Your task to perform on an android device: See recent photos Image 0: 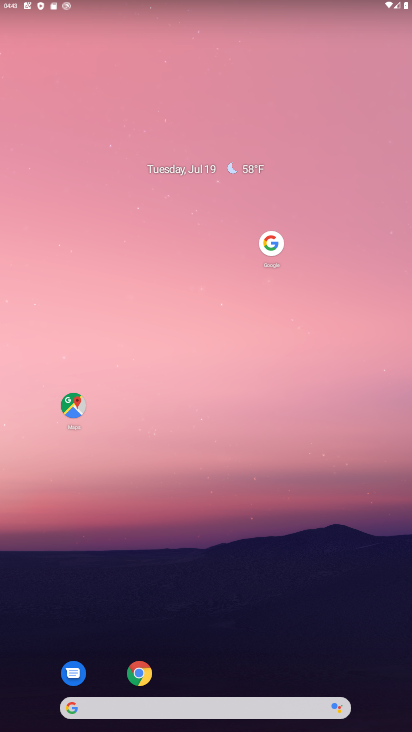
Step 0: press home button
Your task to perform on an android device: See recent photos Image 1: 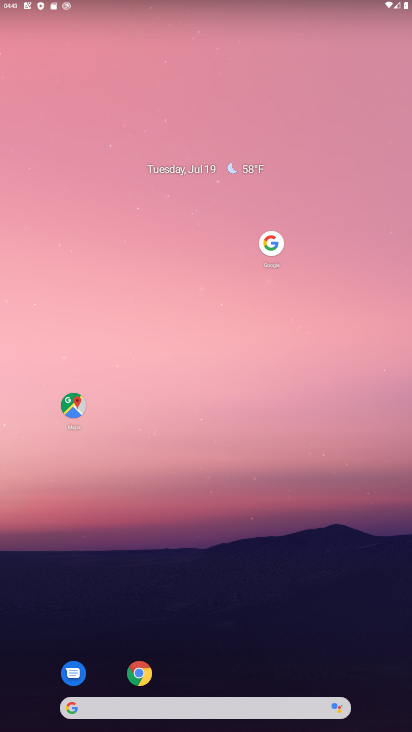
Step 1: drag from (263, 612) to (173, 155)
Your task to perform on an android device: See recent photos Image 2: 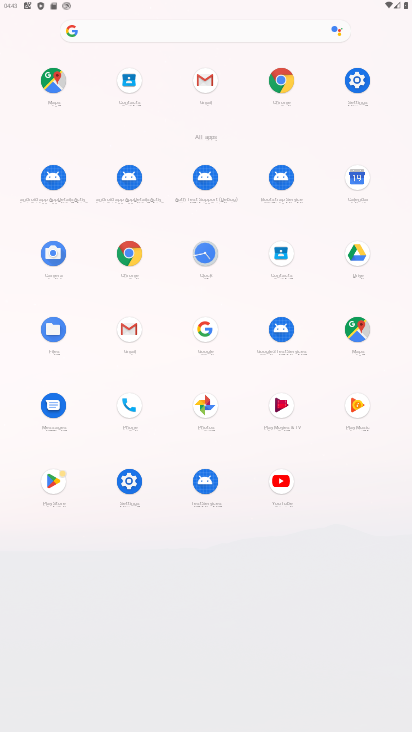
Step 2: click (202, 410)
Your task to perform on an android device: See recent photos Image 3: 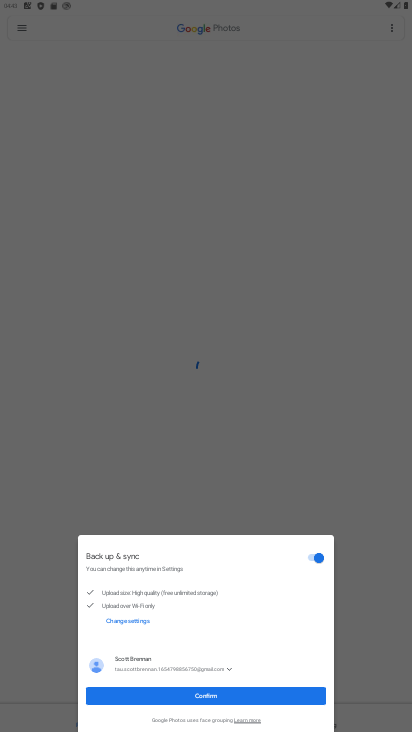
Step 3: click (210, 697)
Your task to perform on an android device: See recent photos Image 4: 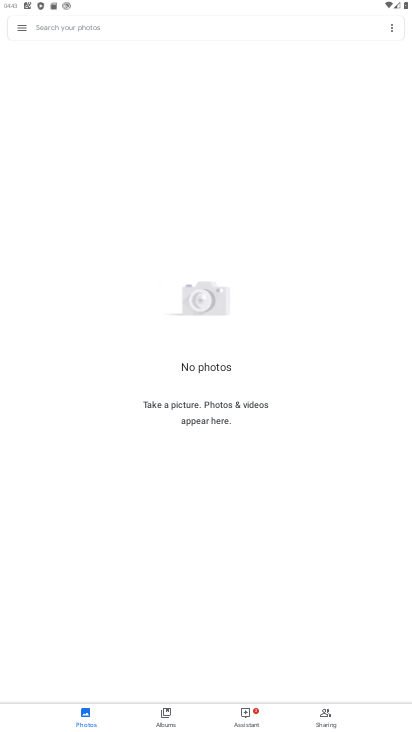
Step 4: task complete